Your task to perform on an android device: toggle notification dots Image 0: 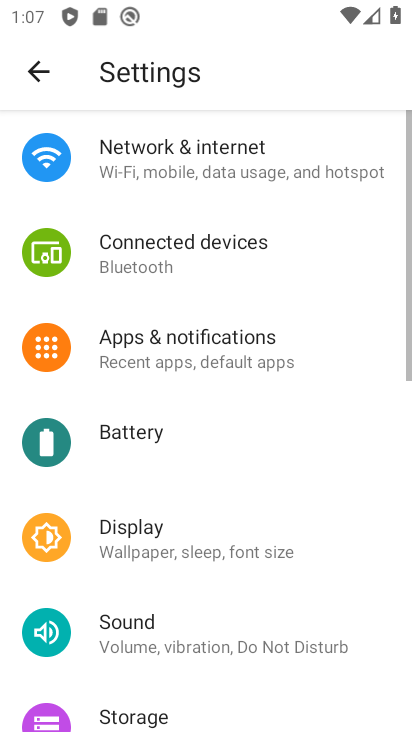
Step 0: drag from (208, 617) to (211, 139)
Your task to perform on an android device: toggle notification dots Image 1: 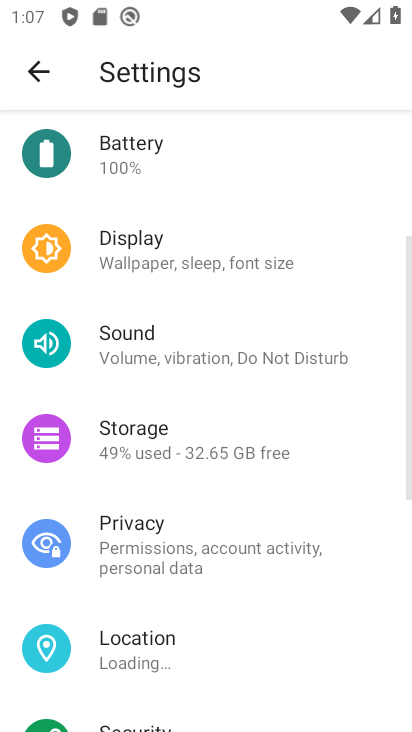
Step 1: drag from (205, 289) to (241, 731)
Your task to perform on an android device: toggle notification dots Image 2: 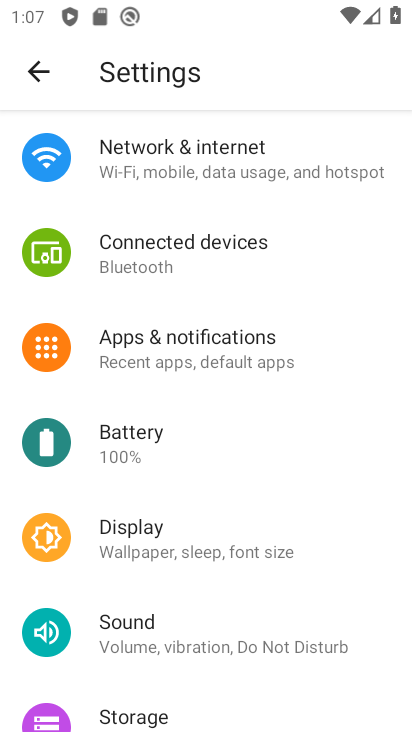
Step 2: click (217, 356)
Your task to perform on an android device: toggle notification dots Image 3: 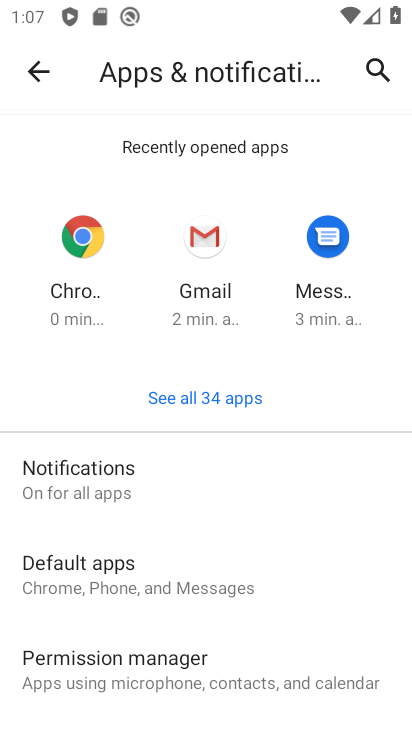
Step 3: click (183, 482)
Your task to perform on an android device: toggle notification dots Image 4: 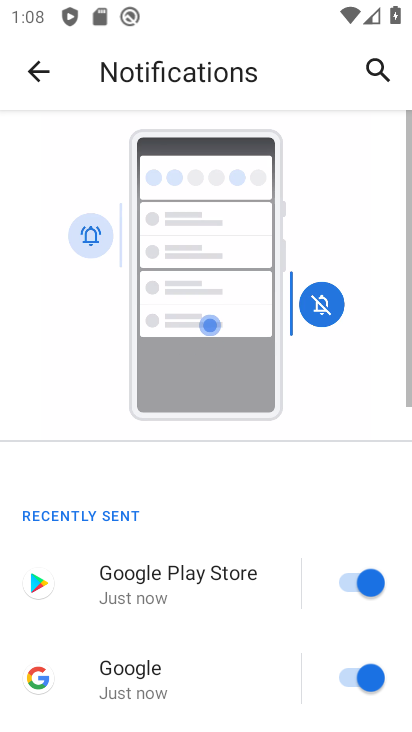
Step 4: drag from (276, 593) to (267, 235)
Your task to perform on an android device: toggle notification dots Image 5: 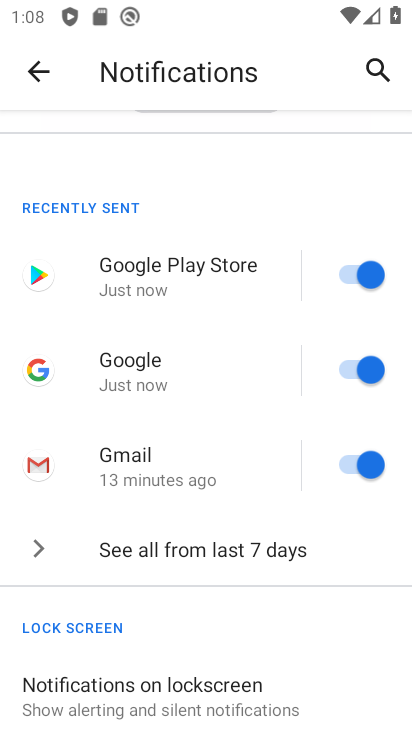
Step 5: drag from (267, 586) to (279, 271)
Your task to perform on an android device: toggle notification dots Image 6: 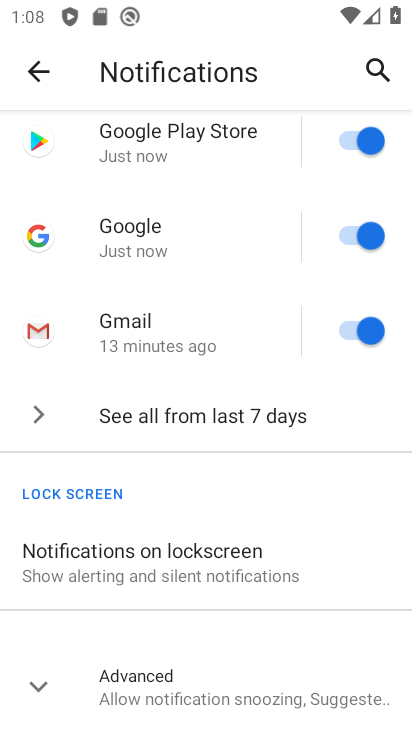
Step 6: click (148, 702)
Your task to perform on an android device: toggle notification dots Image 7: 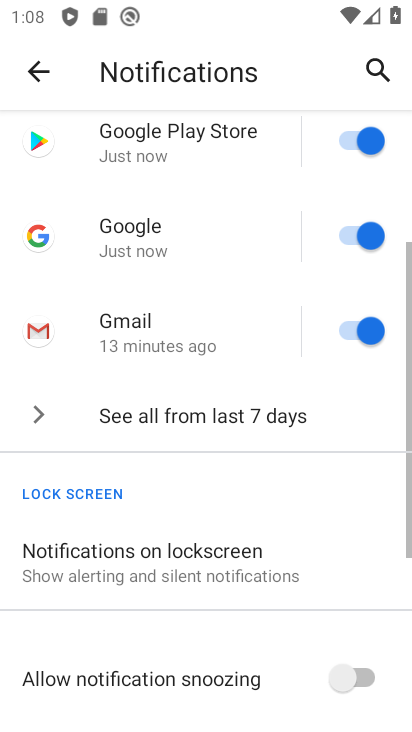
Step 7: drag from (179, 635) to (246, 217)
Your task to perform on an android device: toggle notification dots Image 8: 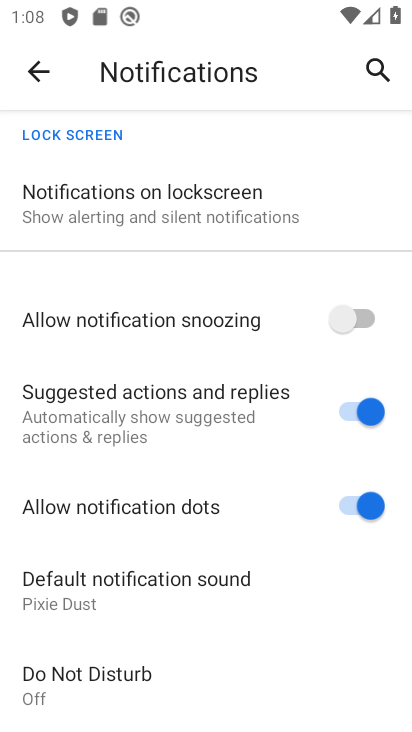
Step 8: click (352, 506)
Your task to perform on an android device: toggle notification dots Image 9: 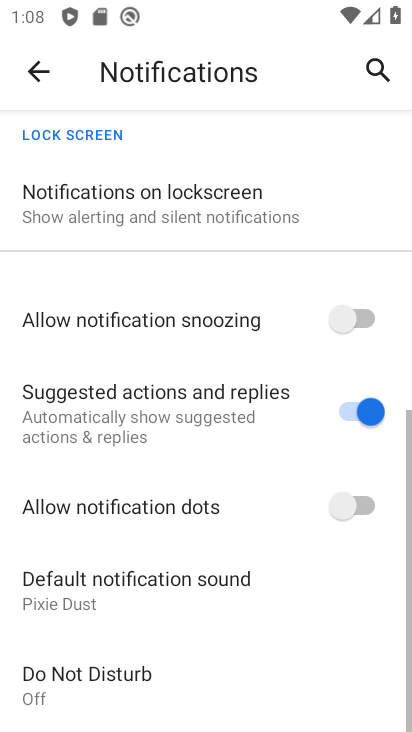
Step 9: task complete